Your task to perform on an android device: Go to internet settings Image 0: 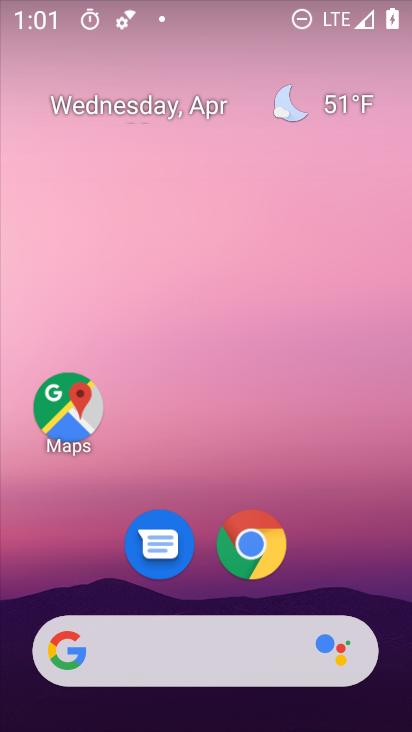
Step 0: drag from (339, 565) to (346, 169)
Your task to perform on an android device: Go to internet settings Image 1: 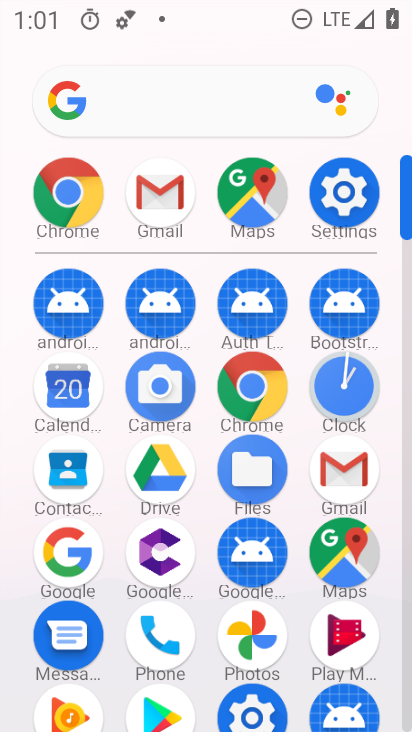
Step 1: click (349, 191)
Your task to perform on an android device: Go to internet settings Image 2: 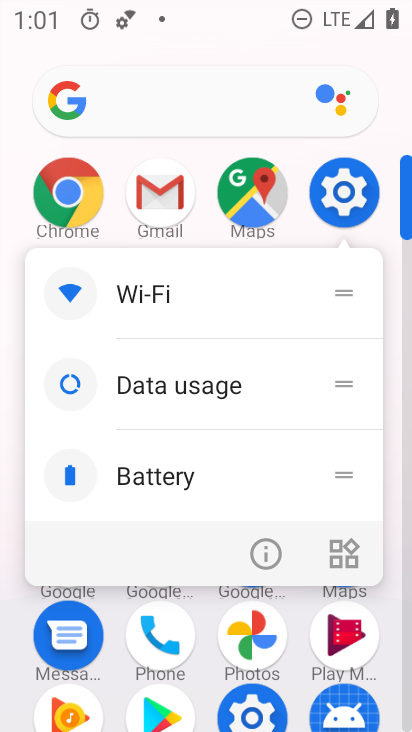
Step 2: click (316, 197)
Your task to perform on an android device: Go to internet settings Image 3: 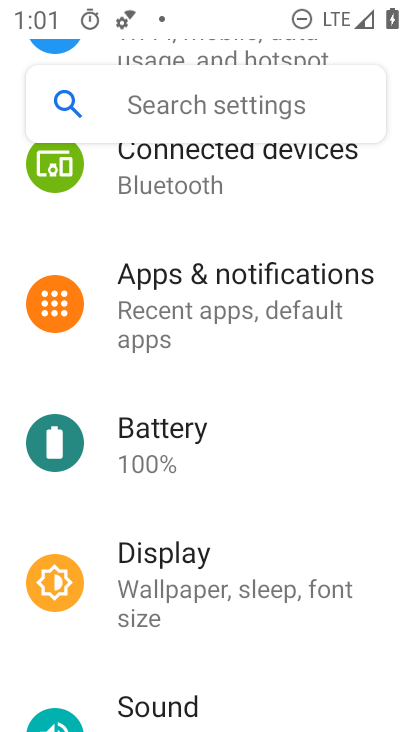
Step 3: drag from (370, 613) to (364, 329)
Your task to perform on an android device: Go to internet settings Image 4: 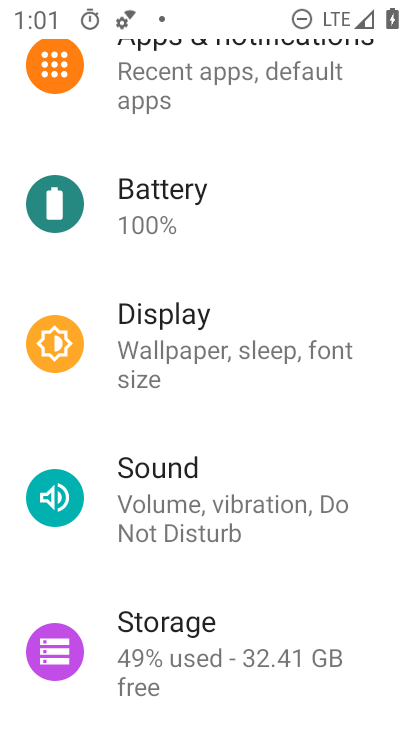
Step 4: drag from (375, 600) to (373, 361)
Your task to perform on an android device: Go to internet settings Image 5: 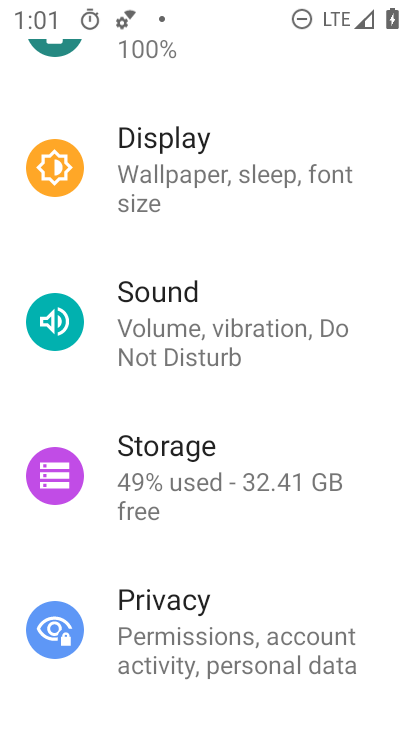
Step 5: drag from (382, 576) to (371, 379)
Your task to perform on an android device: Go to internet settings Image 6: 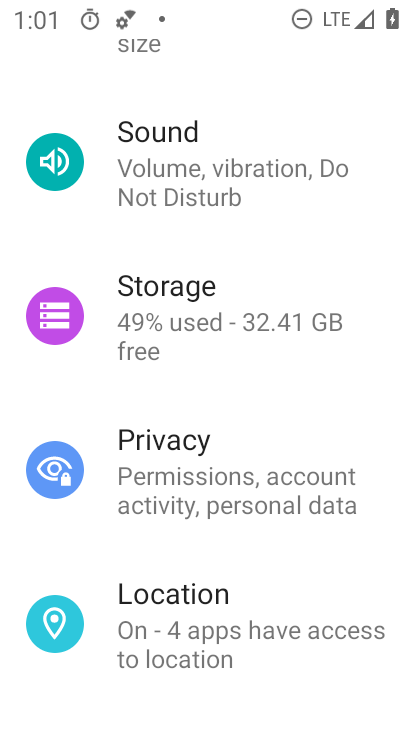
Step 6: drag from (380, 585) to (374, 356)
Your task to perform on an android device: Go to internet settings Image 7: 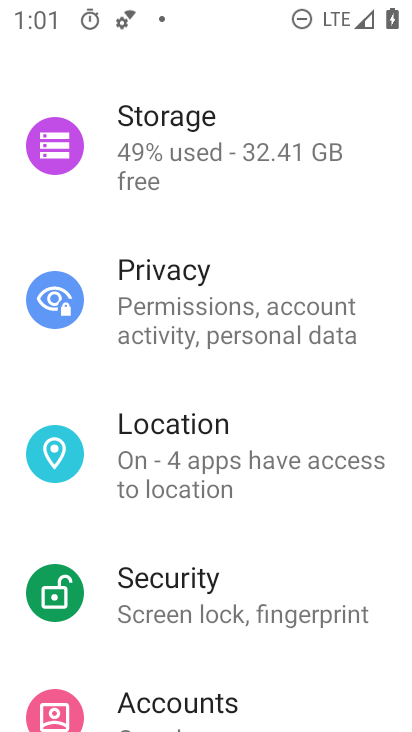
Step 7: drag from (378, 553) to (378, 356)
Your task to perform on an android device: Go to internet settings Image 8: 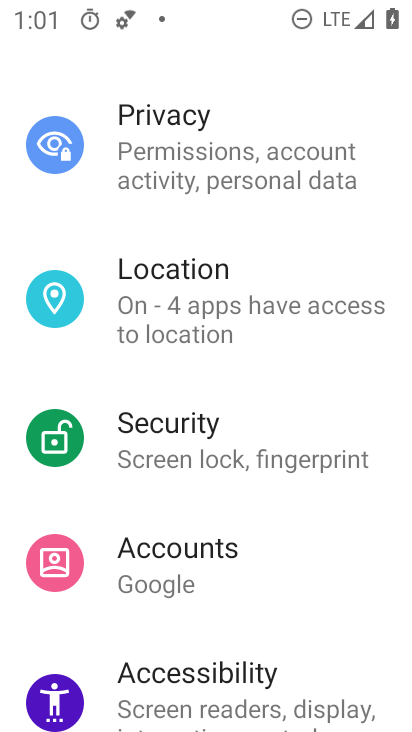
Step 8: drag from (365, 582) to (375, 277)
Your task to perform on an android device: Go to internet settings Image 9: 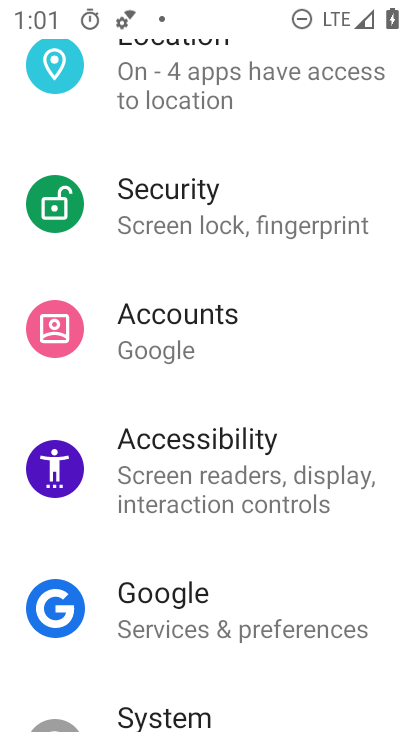
Step 9: drag from (334, 654) to (345, 397)
Your task to perform on an android device: Go to internet settings Image 10: 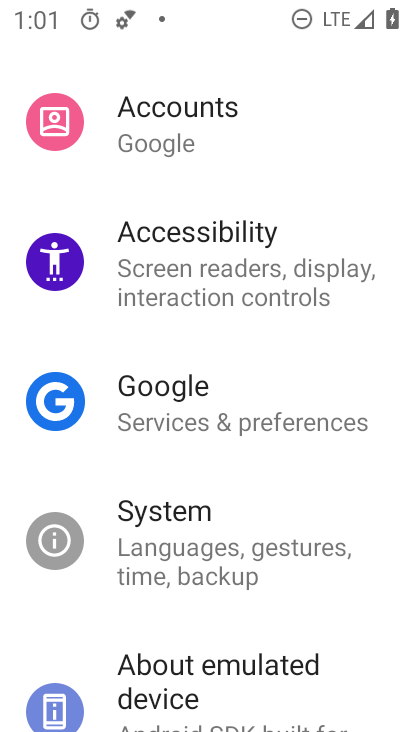
Step 10: drag from (368, 323) to (374, 476)
Your task to perform on an android device: Go to internet settings Image 11: 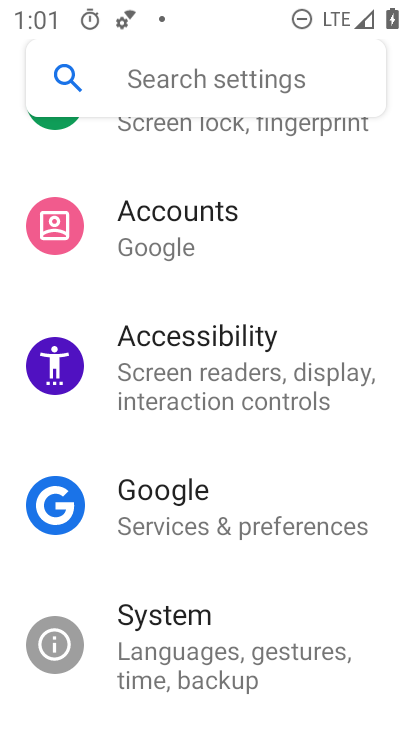
Step 11: drag from (376, 287) to (377, 461)
Your task to perform on an android device: Go to internet settings Image 12: 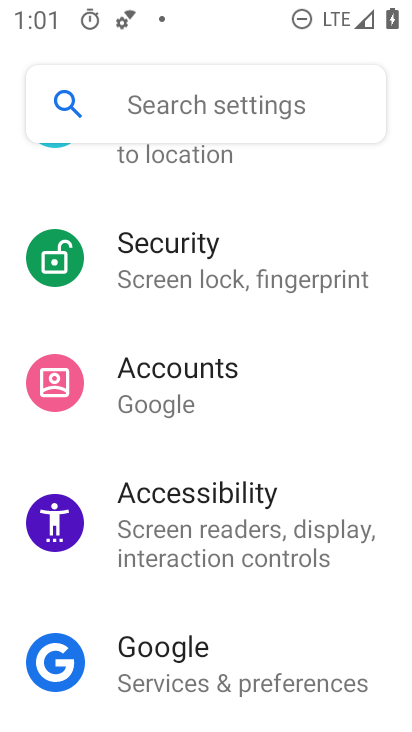
Step 12: drag from (387, 248) to (380, 417)
Your task to perform on an android device: Go to internet settings Image 13: 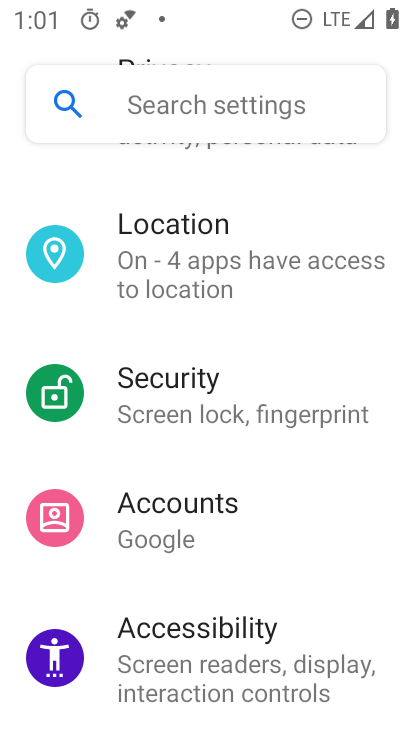
Step 13: drag from (381, 228) to (377, 406)
Your task to perform on an android device: Go to internet settings Image 14: 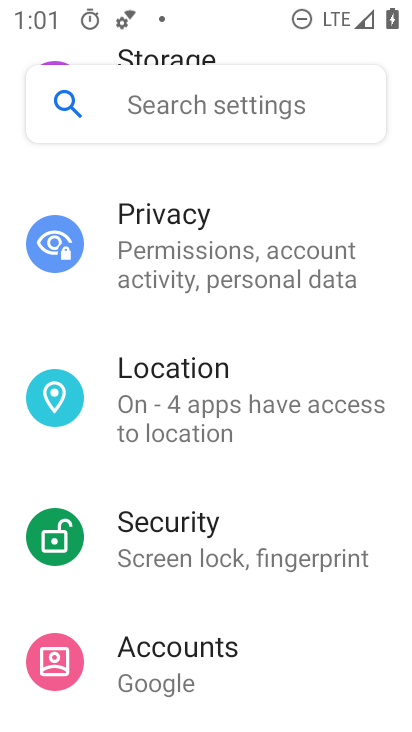
Step 14: drag from (387, 214) to (386, 404)
Your task to perform on an android device: Go to internet settings Image 15: 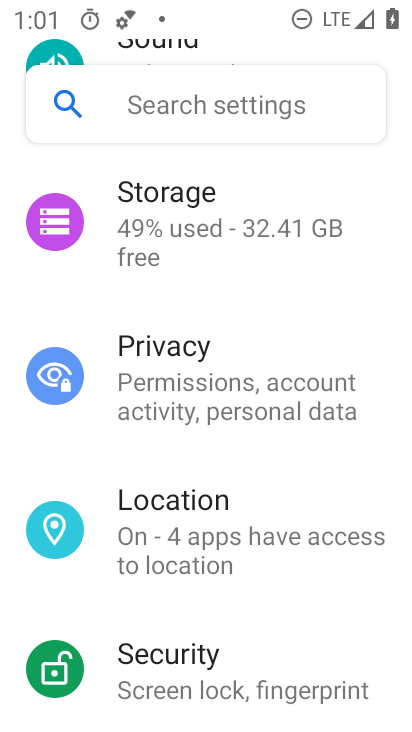
Step 15: drag from (374, 209) to (374, 402)
Your task to perform on an android device: Go to internet settings Image 16: 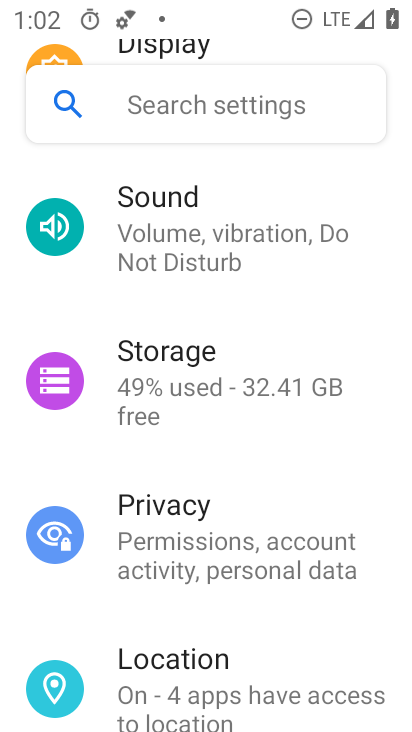
Step 16: drag from (369, 202) to (360, 374)
Your task to perform on an android device: Go to internet settings Image 17: 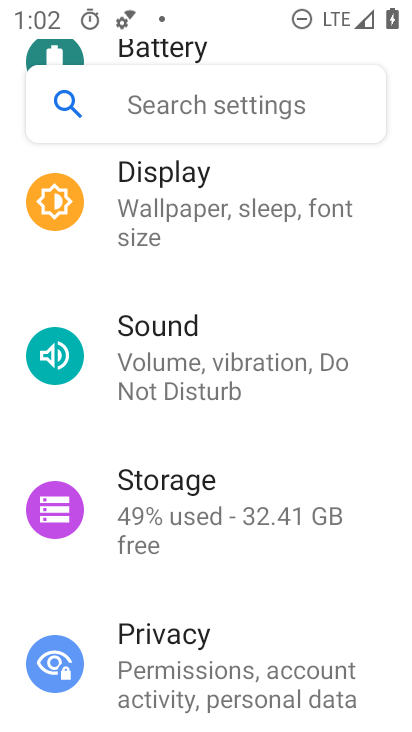
Step 17: drag from (369, 183) to (365, 339)
Your task to perform on an android device: Go to internet settings Image 18: 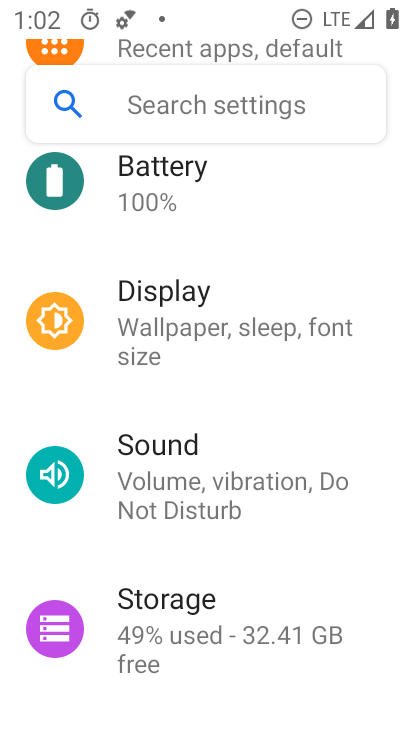
Step 18: drag from (381, 179) to (371, 396)
Your task to perform on an android device: Go to internet settings Image 19: 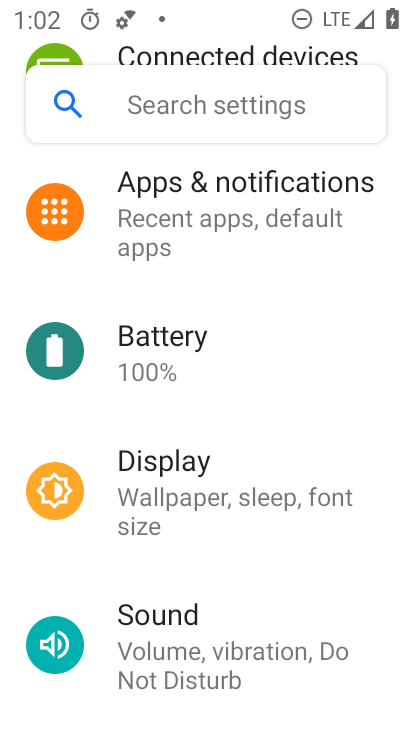
Step 19: drag from (363, 215) to (352, 410)
Your task to perform on an android device: Go to internet settings Image 20: 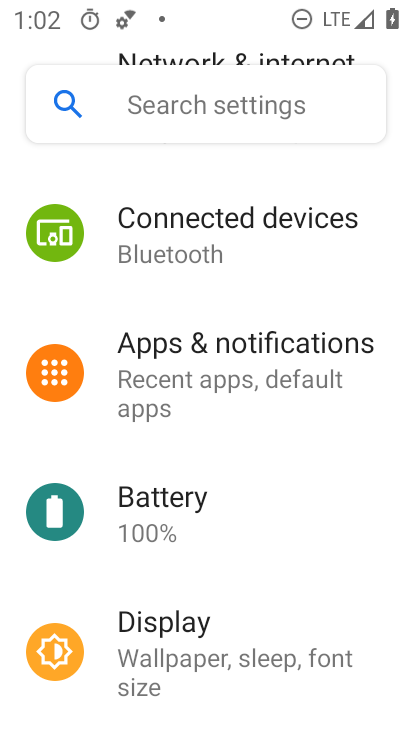
Step 20: drag from (386, 187) to (366, 461)
Your task to perform on an android device: Go to internet settings Image 21: 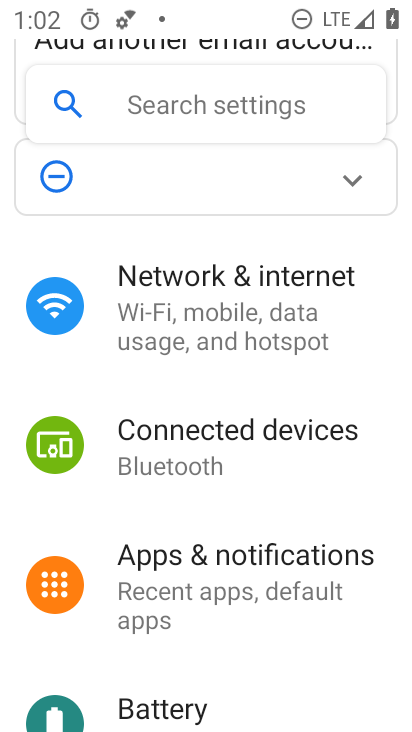
Step 21: click (217, 310)
Your task to perform on an android device: Go to internet settings Image 22: 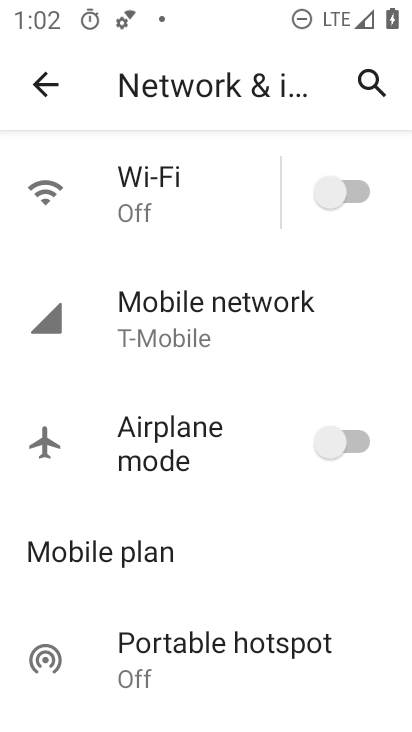
Step 22: task complete